Your task to perform on an android device: change timer sound Image 0: 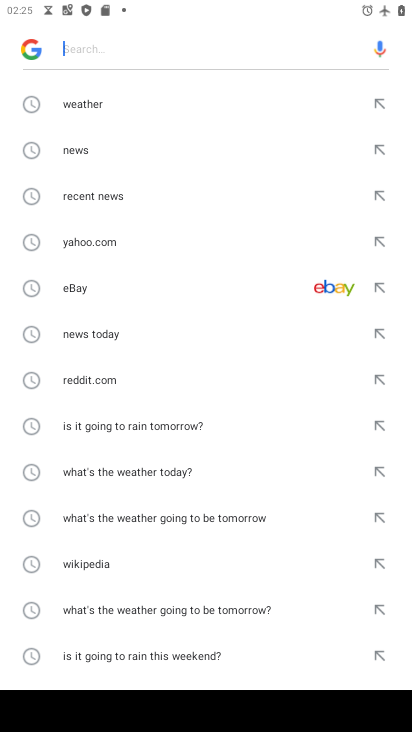
Step 0: press home button
Your task to perform on an android device: change timer sound Image 1: 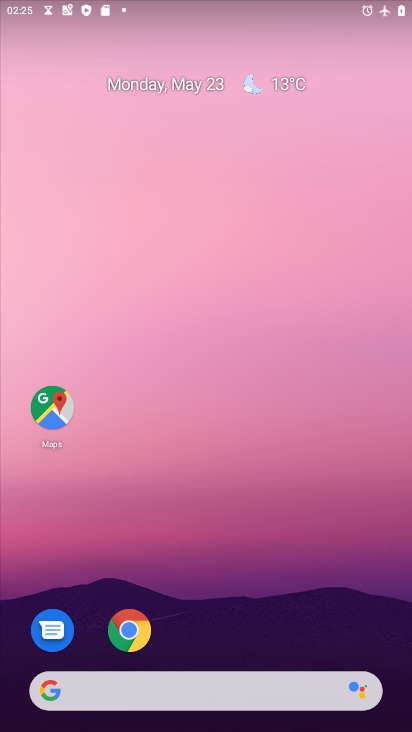
Step 1: drag from (272, 589) to (179, 50)
Your task to perform on an android device: change timer sound Image 2: 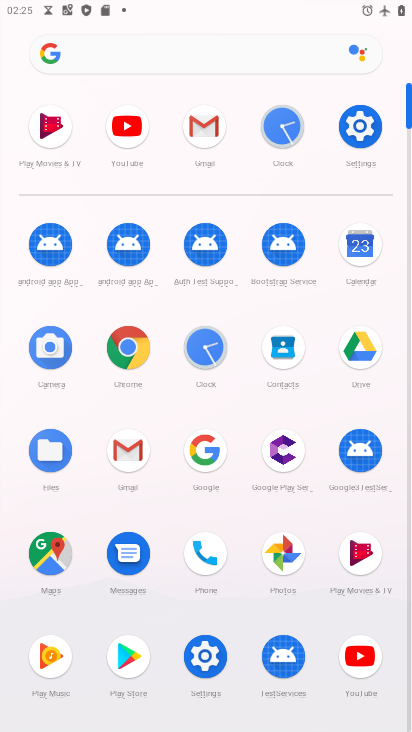
Step 2: click (287, 131)
Your task to perform on an android device: change timer sound Image 3: 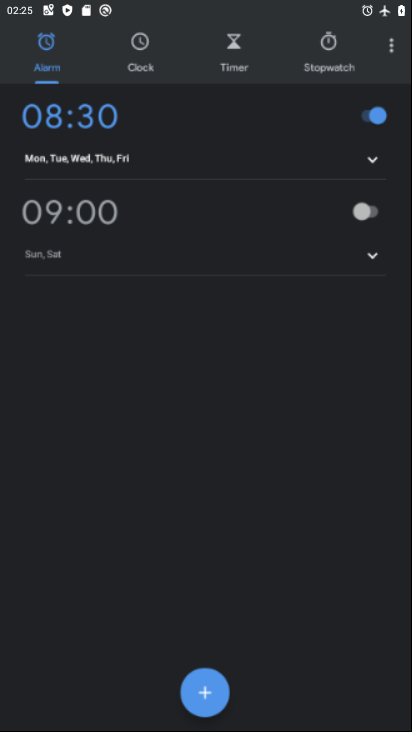
Step 3: click (393, 31)
Your task to perform on an android device: change timer sound Image 4: 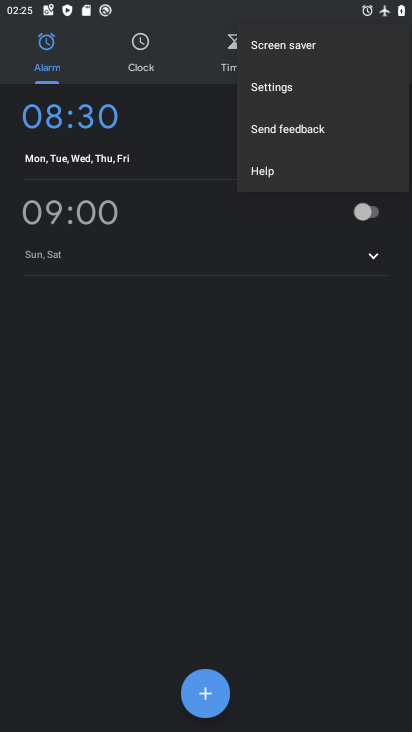
Step 4: click (296, 79)
Your task to perform on an android device: change timer sound Image 5: 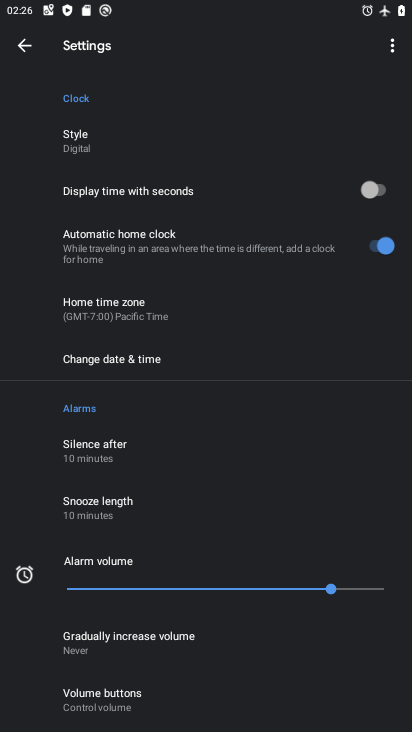
Step 5: drag from (238, 540) to (259, 252)
Your task to perform on an android device: change timer sound Image 6: 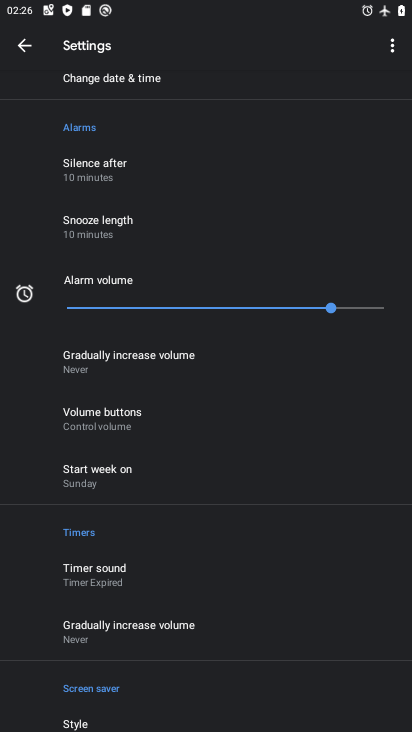
Step 6: click (191, 571)
Your task to perform on an android device: change timer sound Image 7: 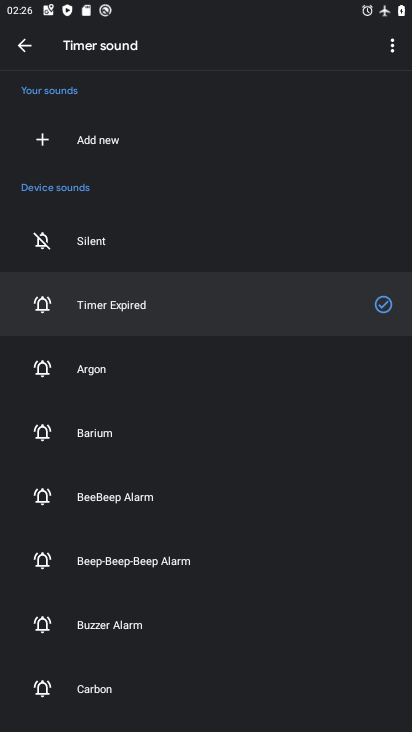
Step 7: click (284, 382)
Your task to perform on an android device: change timer sound Image 8: 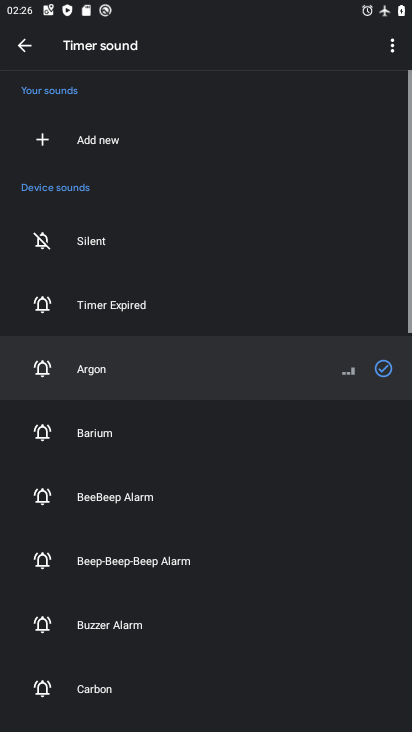
Step 8: task complete